Your task to perform on an android device: delete location history Image 0: 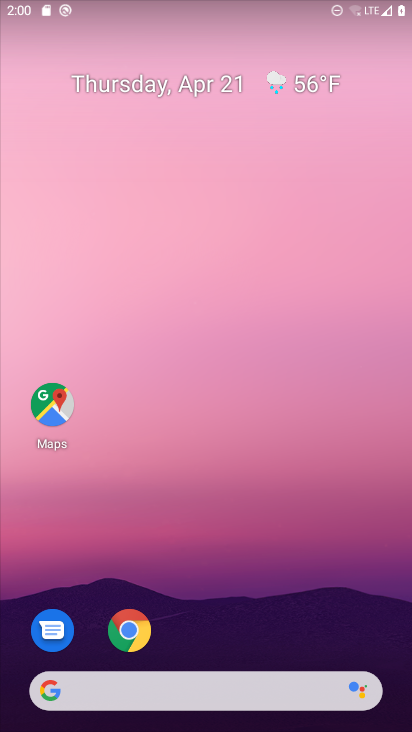
Step 0: drag from (179, 676) to (150, 60)
Your task to perform on an android device: delete location history Image 1: 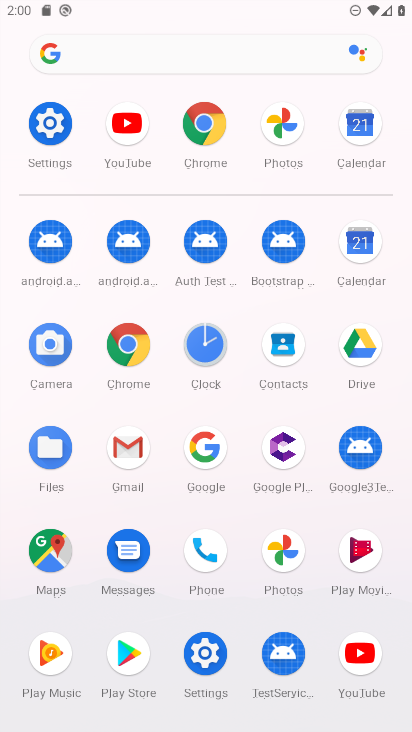
Step 1: click (43, 150)
Your task to perform on an android device: delete location history Image 2: 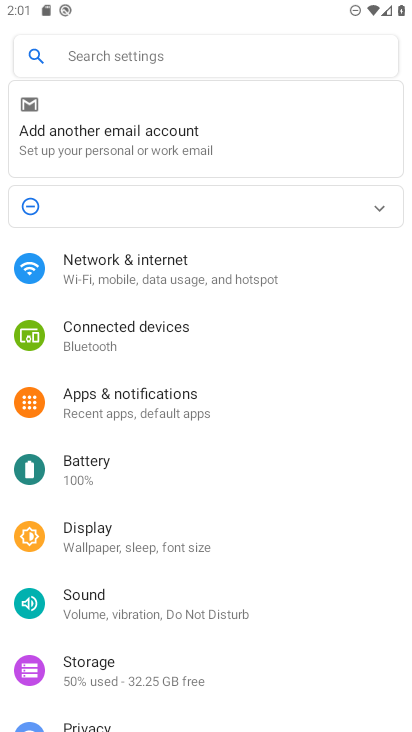
Step 2: press home button
Your task to perform on an android device: delete location history Image 3: 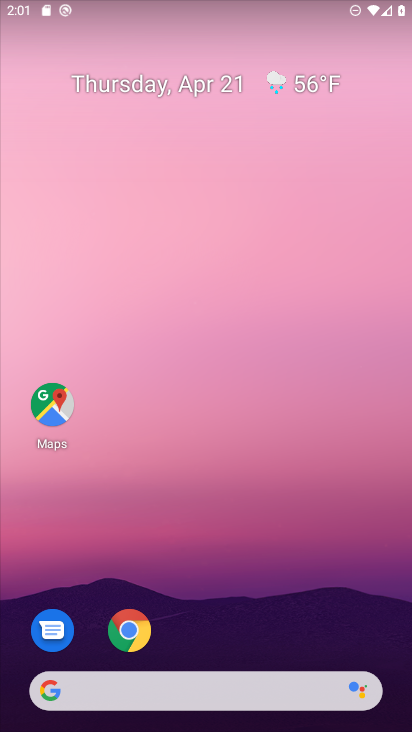
Step 3: drag from (255, 676) to (230, 34)
Your task to perform on an android device: delete location history Image 4: 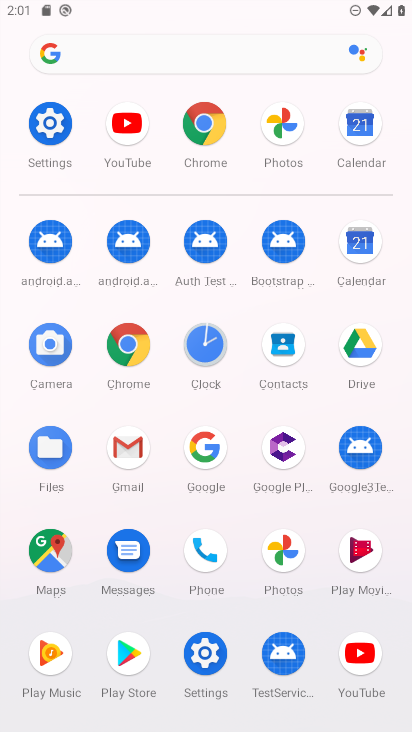
Step 4: click (196, 674)
Your task to perform on an android device: delete location history Image 5: 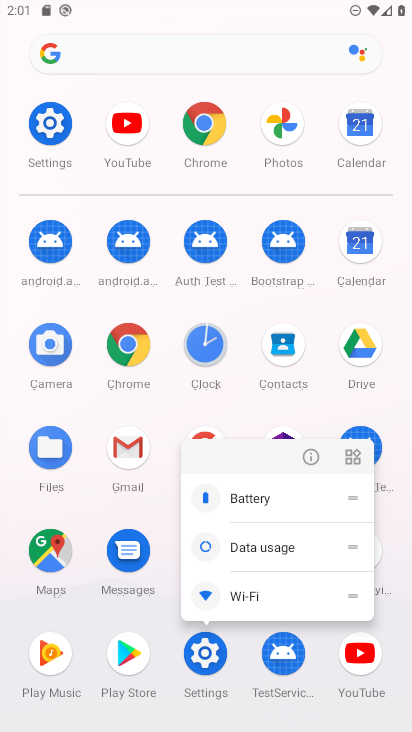
Step 5: click (199, 663)
Your task to perform on an android device: delete location history Image 6: 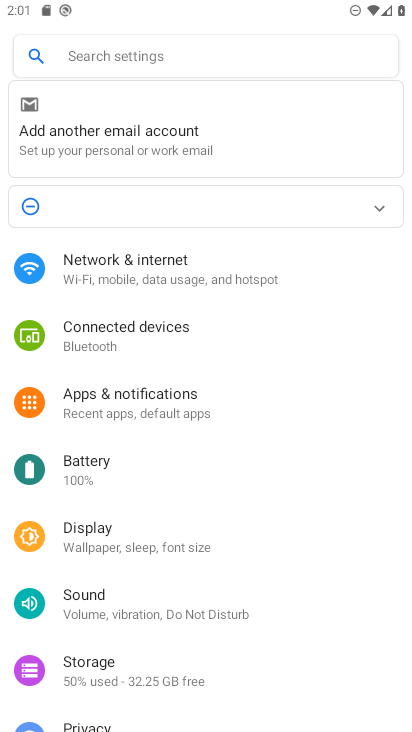
Step 6: press home button
Your task to perform on an android device: delete location history Image 7: 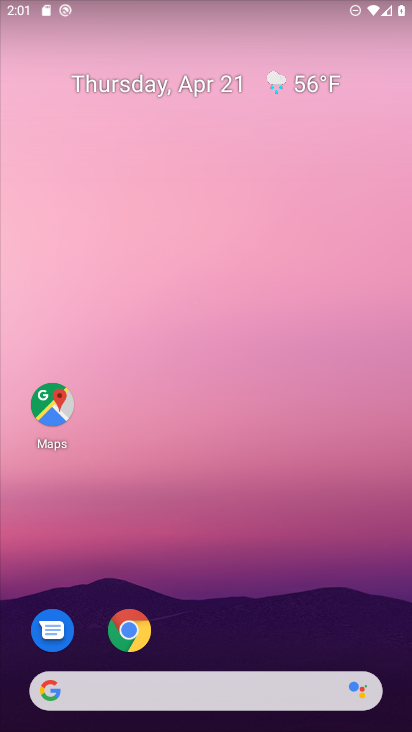
Step 7: click (46, 422)
Your task to perform on an android device: delete location history Image 8: 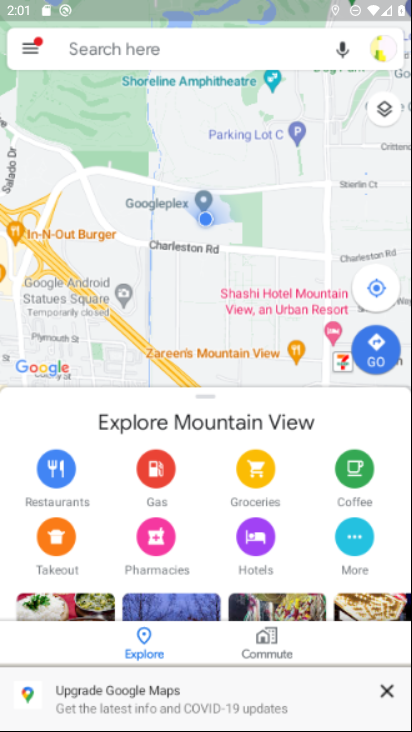
Step 8: click (37, 40)
Your task to perform on an android device: delete location history Image 9: 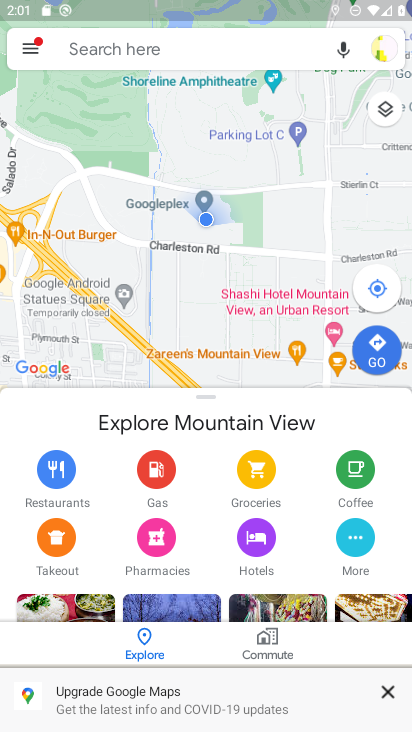
Step 9: click (27, 55)
Your task to perform on an android device: delete location history Image 10: 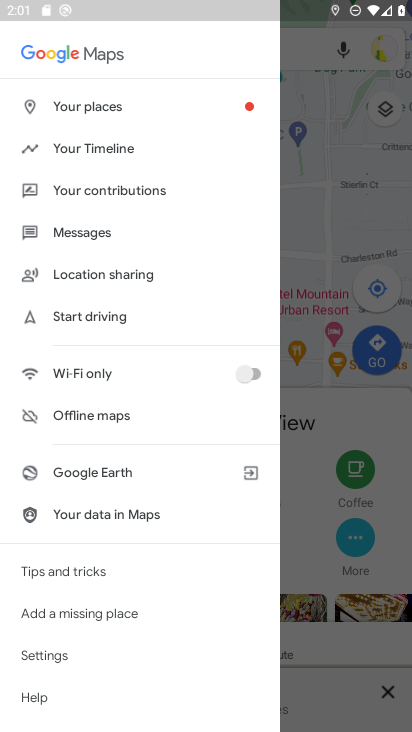
Step 10: click (87, 142)
Your task to perform on an android device: delete location history Image 11: 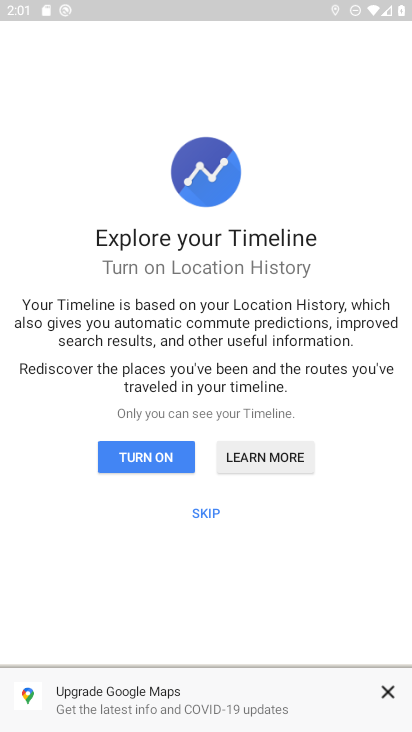
Step 11: click (195, 506)
Your task to perform on an android device: delete location history Image 12: 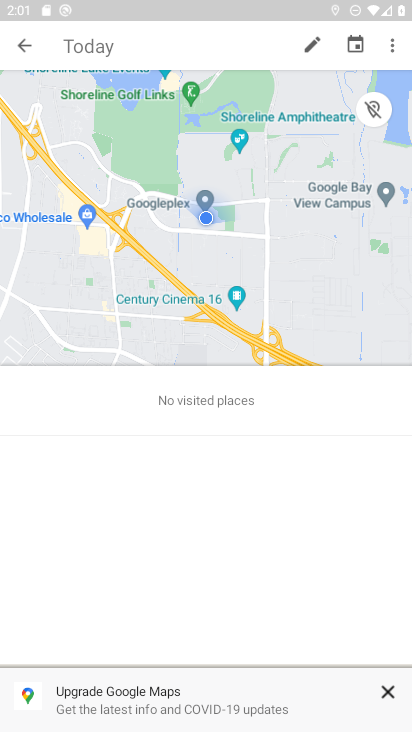
Step 12: click (387, 45)
Your task to perform on an android device: delete location history Image 13: 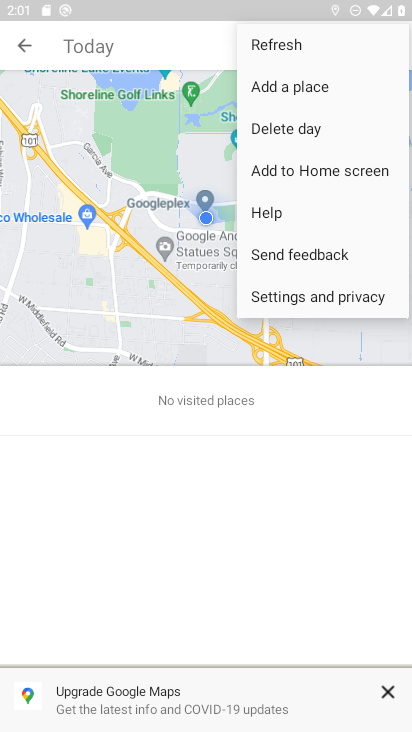
Step 13: click (307, 295)
Your task to perform on an android device: delete location history Image 14: 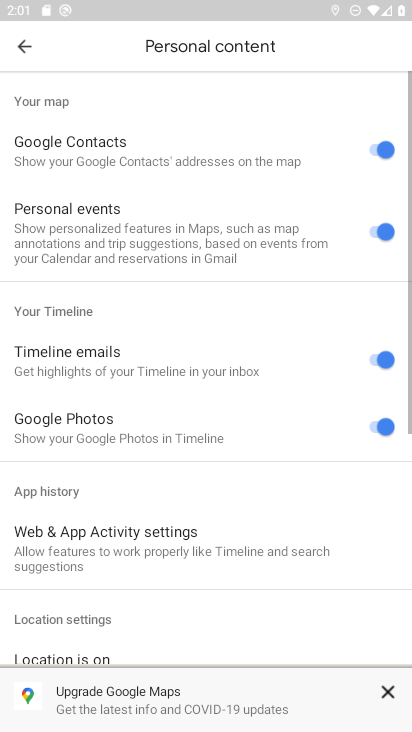
Step 14: drag from (198, 609) to (145, 5)
Your task to perform on an android device: delete location history Image 15: 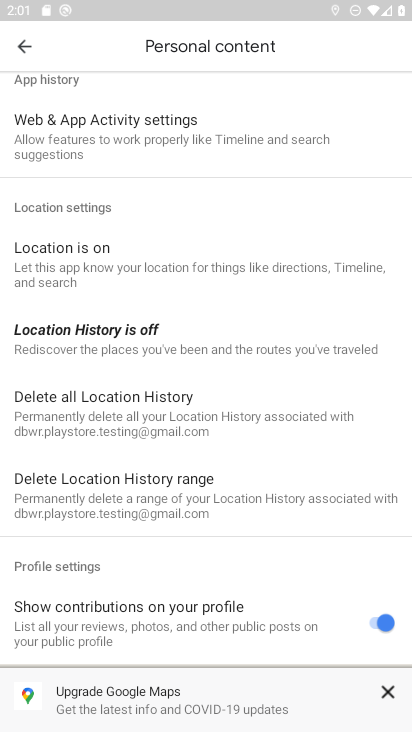
Step 15: drag from (190, 598) to (206, 174)
Your task to perform on an android device: delete location history Image 16: 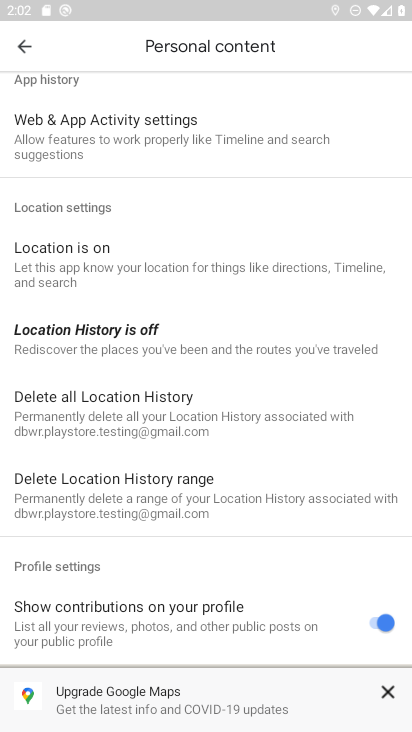
Step 16: click (223, 407)
Your task to perform on an android device: delete location history Image 17: 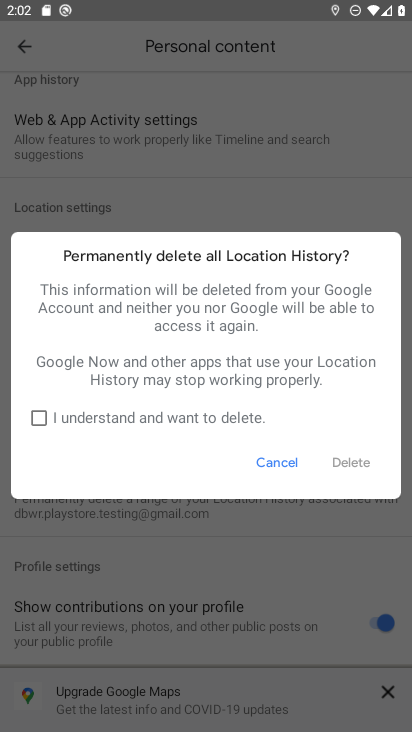
Step 17: click (111, 415)
Your task to perform on an android device: delete location history Image 18: 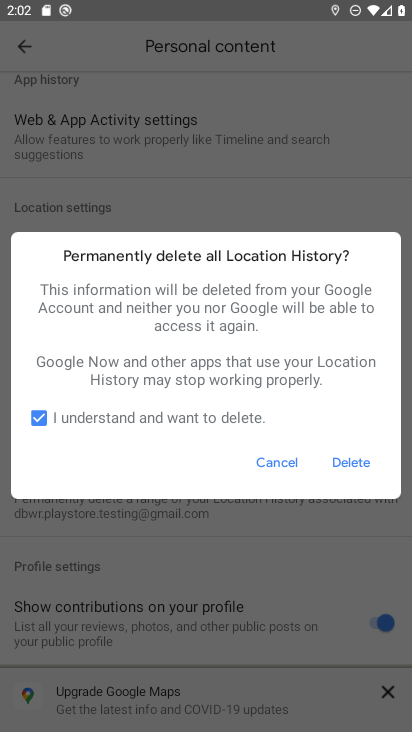
Step 18: click (370, 463)
Your task to perform on an android device: delete location history Image 19: 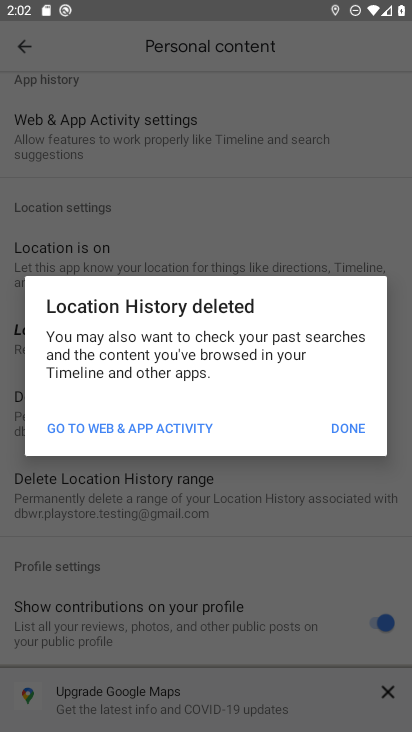
Step 19: click (356, 432)
Your task to perform on an android device: delete location history Image 20: 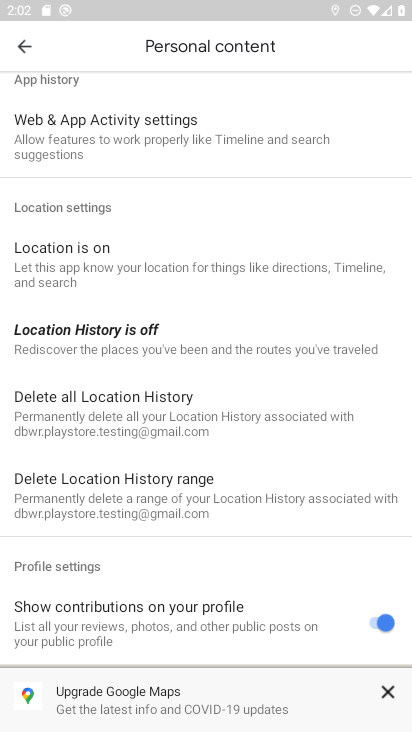
Step 20: task complete